Your task to perform on an android device: open chrome privacy settings Image 0: 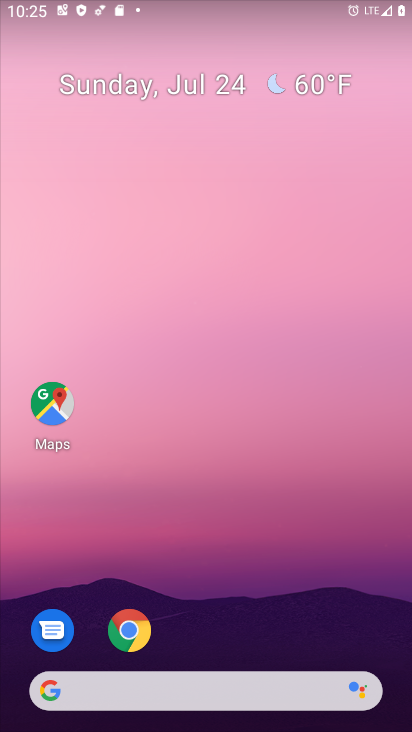
Step 0: click (143, 632)
Your task to perform on an android device: open chrome privacy settings Image 1: 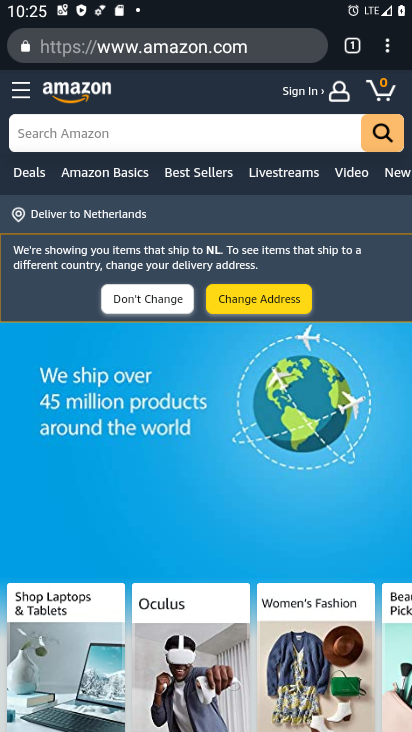
Step 1: click (390, 49)
Your task to perform on an android device: open chrome privacy settings Image 2: 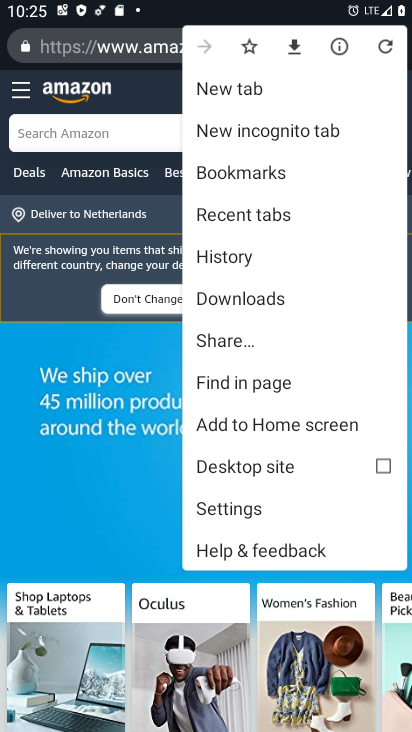
Step 2: click (241, 517)
Your task to perform on an android device: open chrome privacy settings Image 3: 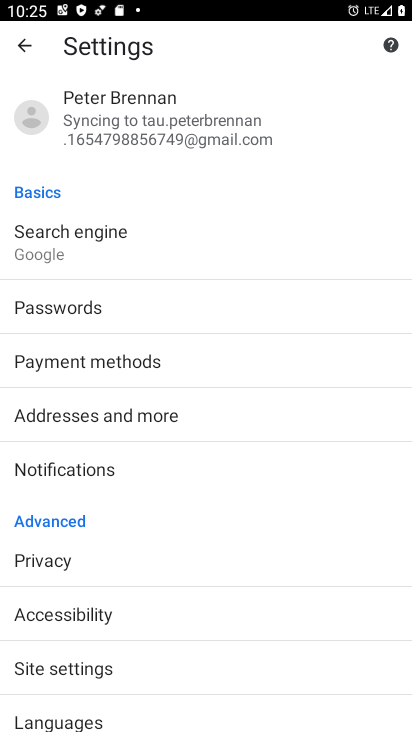
Step 3: click (72, 568)
Your task to perform on an android device: open chrome privacy settings Image 4: 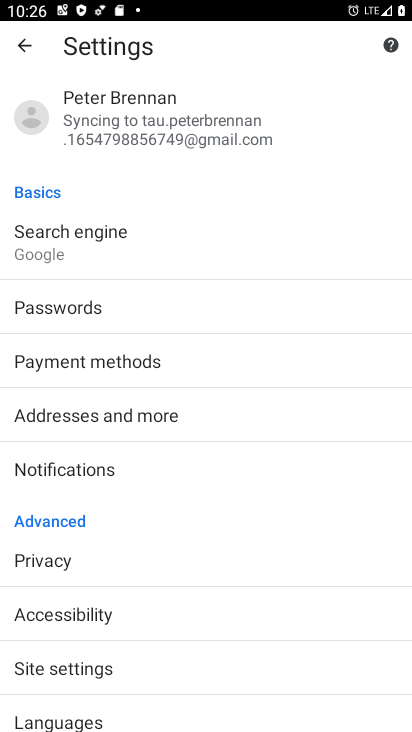
Step 4: click (75, 552)
Your task to perform on an android device: open chrome privacy settings Image 5: 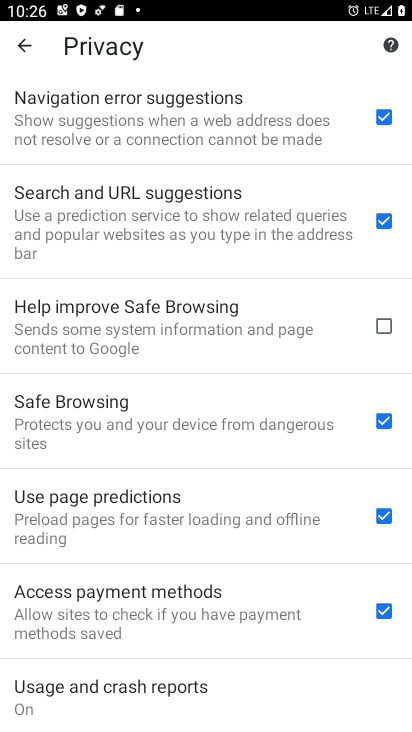
Step 5: task complete